Your task to perform on an android device: change your default location settings in chrome Image 0: 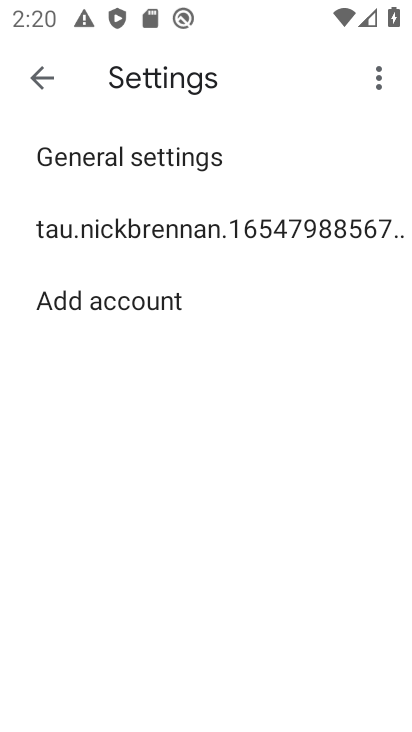
Step 0: press home button
Your task to perform on an android device: change your default location settings in chrome Image 1: 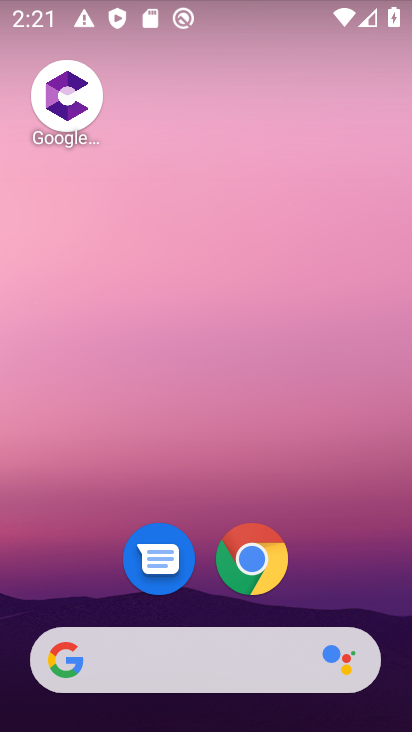
Step 1: click (254, 557)
Your task to perform on an android device: change your default location settings in chrome Image 2: 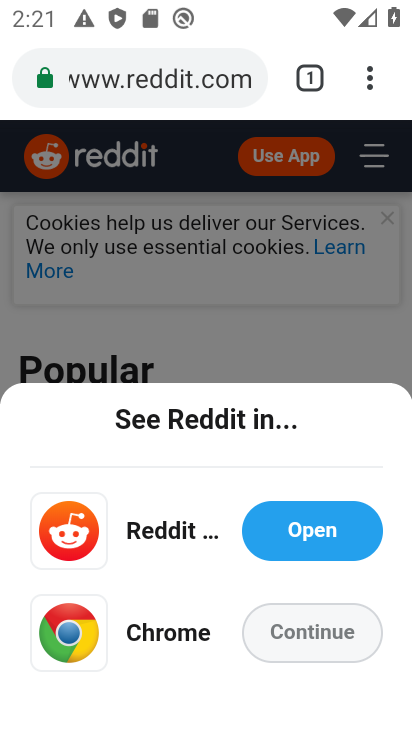
Step 2: click (306, 617)
Your task to perform on an android device: change your default location settings in chrome Image 3: 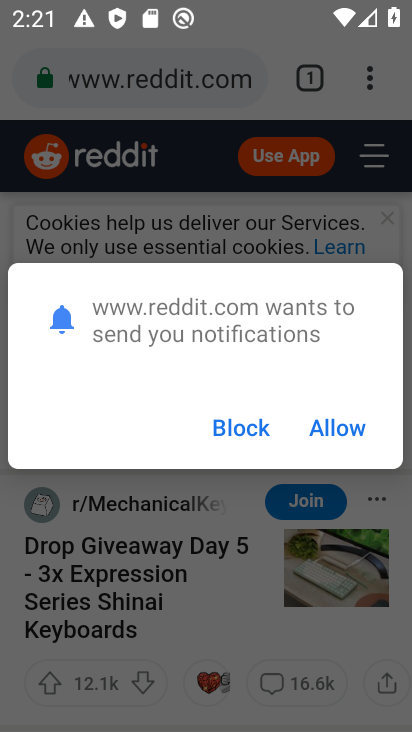
Step 3: click (357, 435)
Your task to perform on an android device: change your default location settings in chrome Image 4: 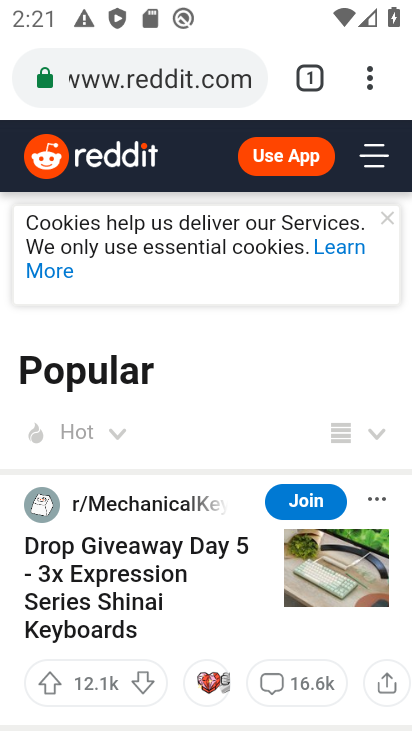
Step 4: click (369, 73)
Your task to perform on an android device: change your default location settings in chrome Image 5: 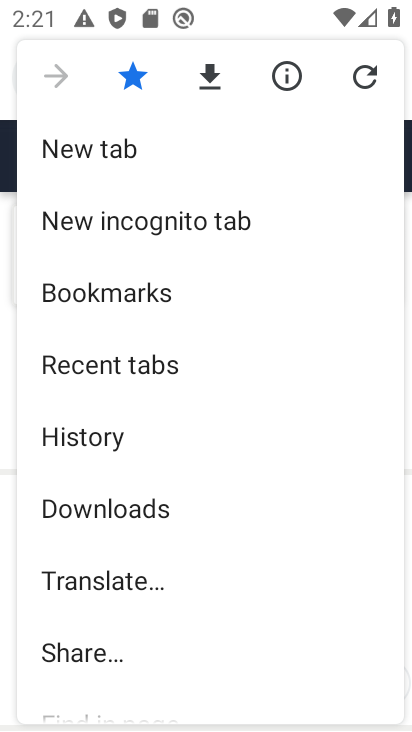
Step 5: drag from (85, 501) to (147, 207)
Your task to perform on an android device: change your default location settings in chrome Image 6: 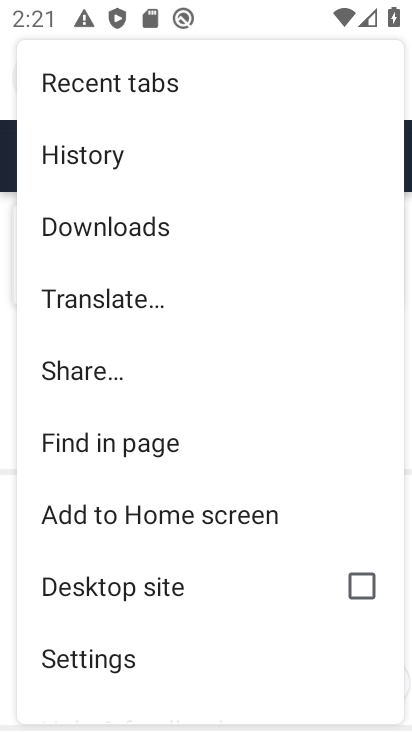
Step 6: click (95, 657)
Your task to perform on an android device: change your default location settings in chrome Image 7: 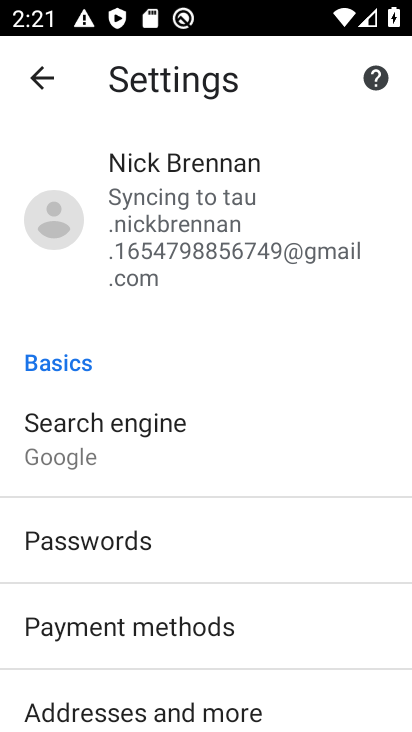
Step 7: drag from (95, 626) to (100, 535)
Your task to perform on an android device: change your default location settings in chrome Image 8: 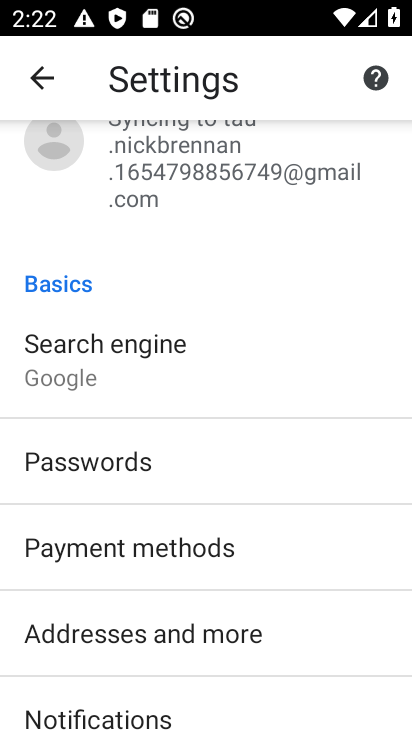
Step 8: drag from (86, 681) to (190, 277)
Your task to perform on an android device: change your default location settings in chrome Image 9: 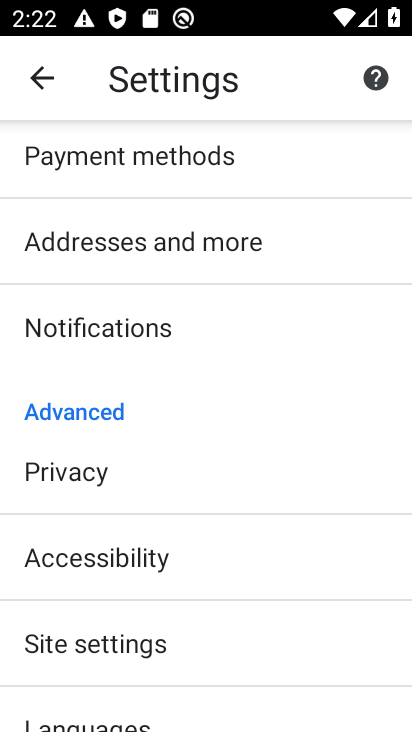
Step 9: click (48, 633)
Your task to perform on an android device: change your default location settings in chrome Image 10: 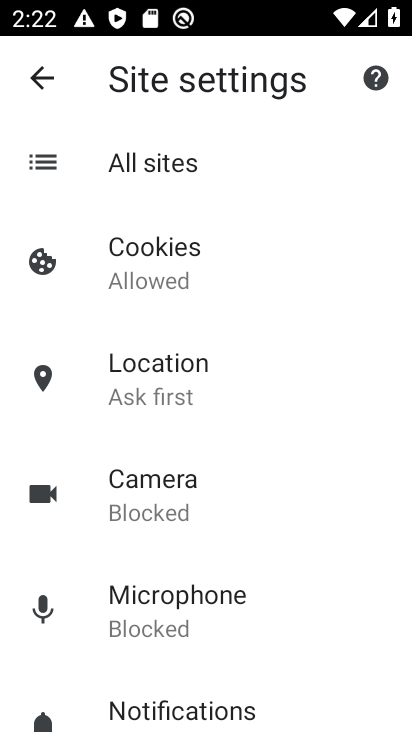
Step 10: drag from (157, 641) to (279, 654)
Your task to perform on an android device: change your default location settings in chrome Image 11: 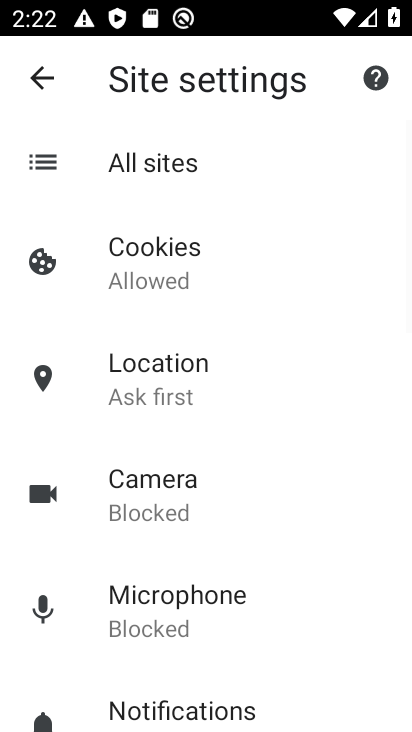
Step 11: click (166, 361)
Your task to perform on an android device: change your default location settings in chrome Image 12: 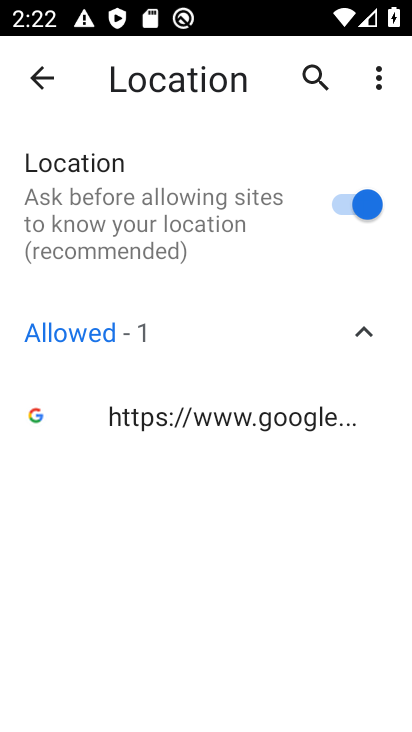
Step 12: click (342, 196)
Your task to perform on an android device: change your default location settings in chrome Image 13: 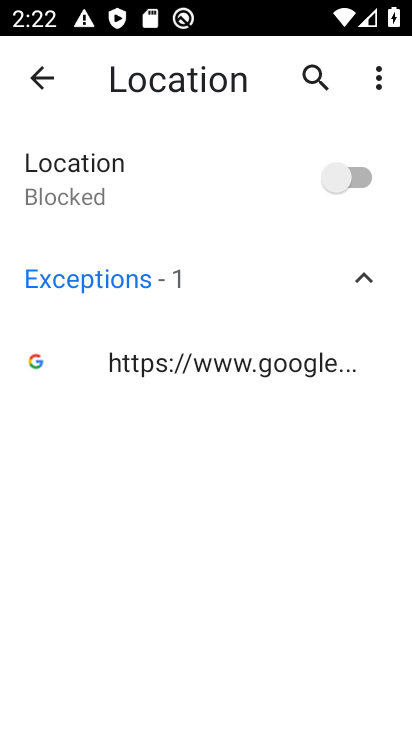
Step 13: task complete